Your task to perform on an android device: Go to wifi settings Image 0: 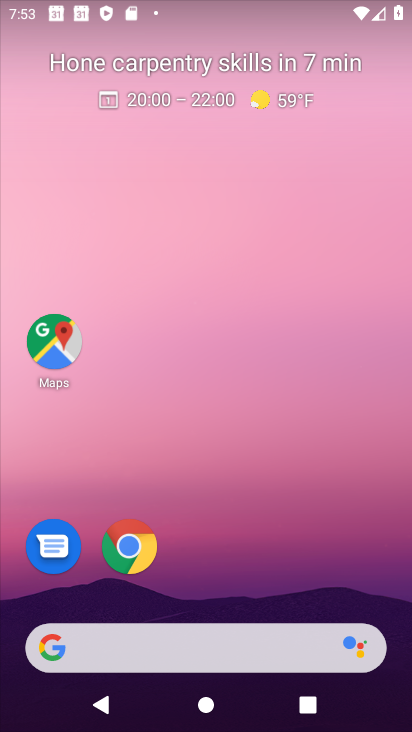
Step 0: drag from (238, 8) to (279, 370)
Your task to perform on an android device: Go to wifi settings Image 1: 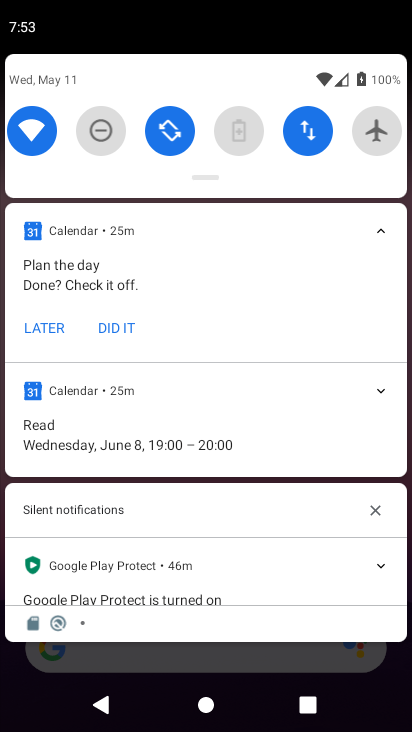
Step 1: click (34, 123)
Your task to perform on an android device: Go to wifi settings Image 2: 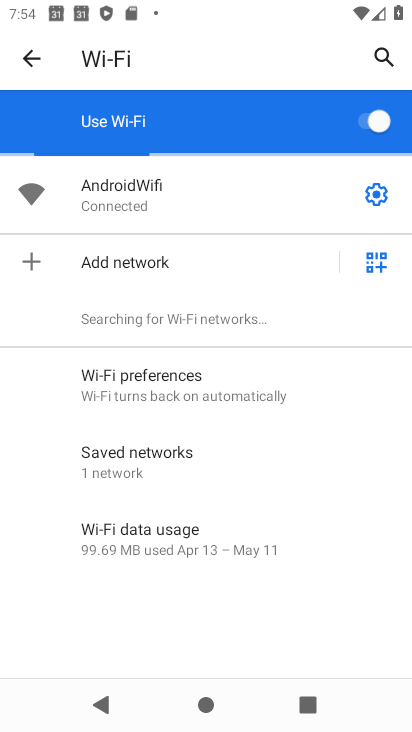
Step 2: task complete